Your task to perform on an android device: Is it going to rain today? Image 0: 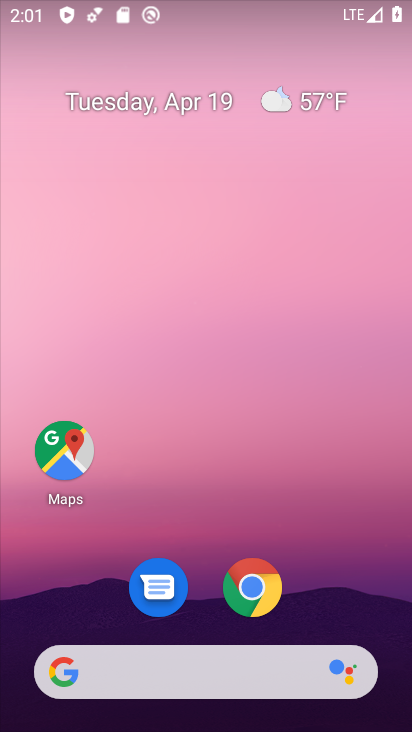
Step 0: drag from (220, 611) to (191, 160)
Your task to perform on an android device: Is it going to rain today? Image 1: 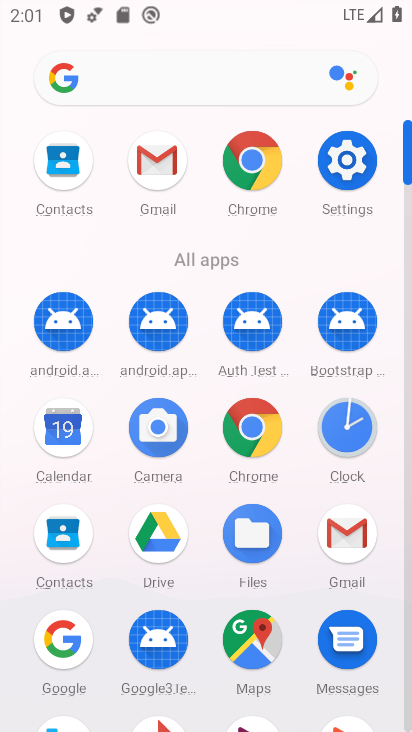
Step 1: press home button
Your task to perform on an android device: Is it going to rain today? Image 2: 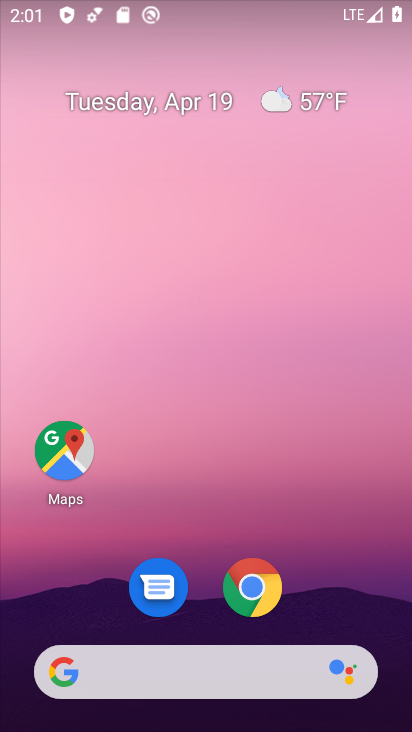
Step 2: click (269, 96)
Your task to perform on an android device: Is it going to rain today? Image 3: 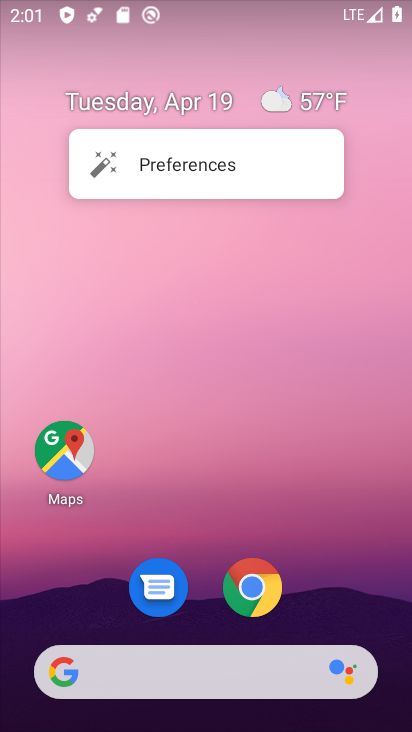
Step 3: click (260, 103)
Your task to perform on an android device: Is it going to rain today? Image 4: 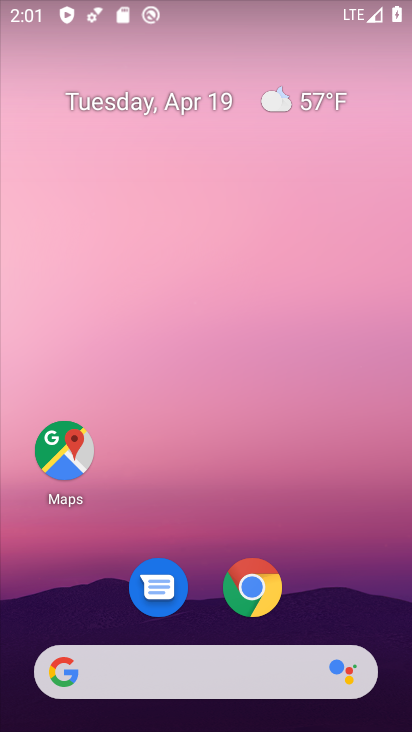
Step 4: click (261, 103)
Your task to perform on an android device: Is it going to rain today? Image 5: 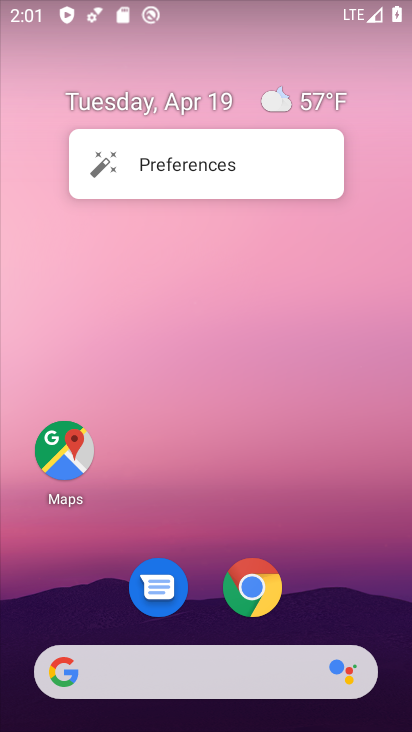
Step 5: click (269, 106)
Your task to perform on an android device: Is it going to rain today? Image 6: 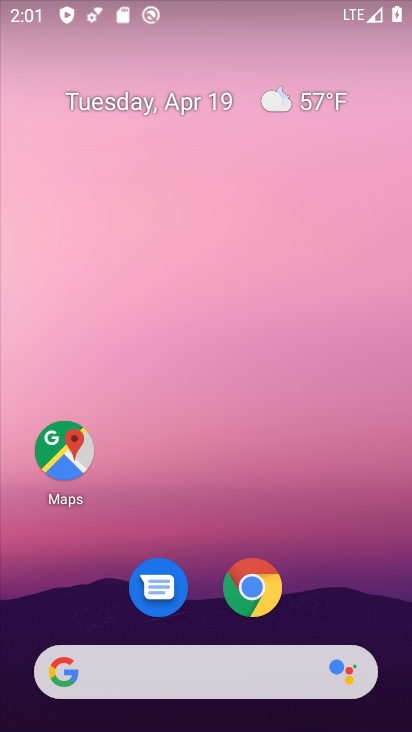
Step 6: click (269, 106)
Your task to perform on an android device: Is it going to rain today? Image 7: 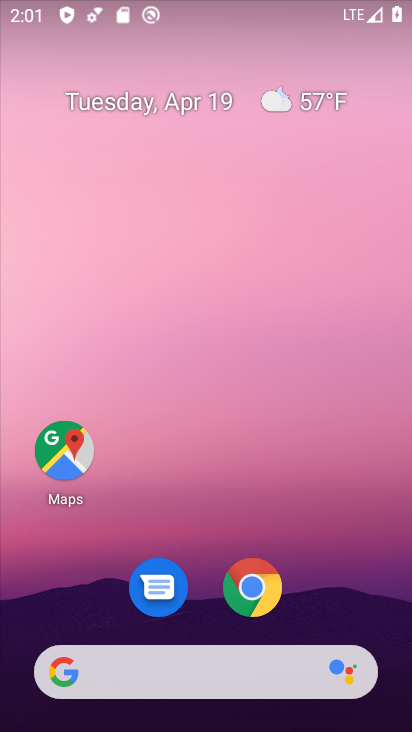
Step 7: click (269, 106)
Your task to perform on an android device: Is it going to rain today? Image 8: 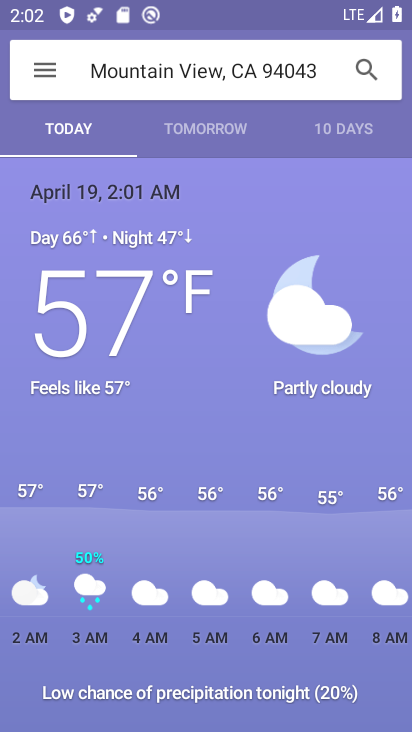
Step 8: task complete